Your task to perform on an android device: refresh tabs in the chrome app Image 0: 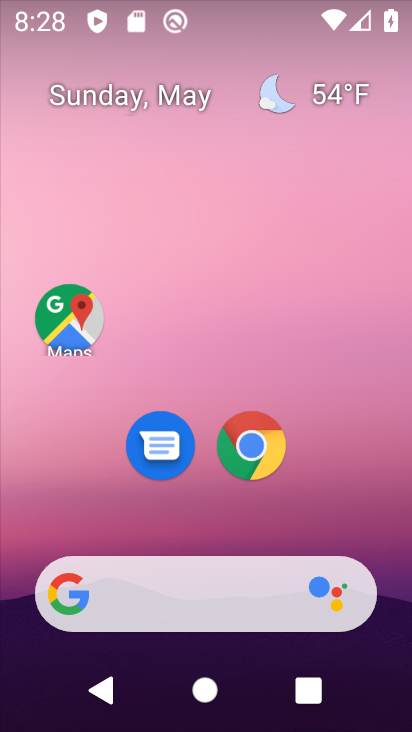
Step 0: click (251, 451)
Your task to perform on an android device: refresh tabs in the chrome app Image 1: 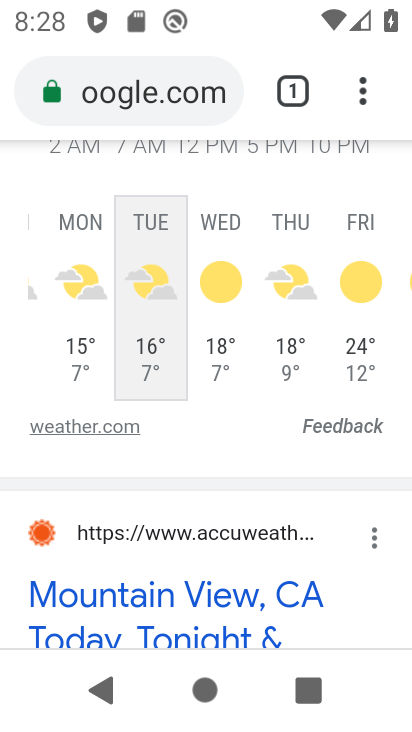
Step 1: task complete